Your task to perform on an android device: Is it going to rain this weekend? Image 0: 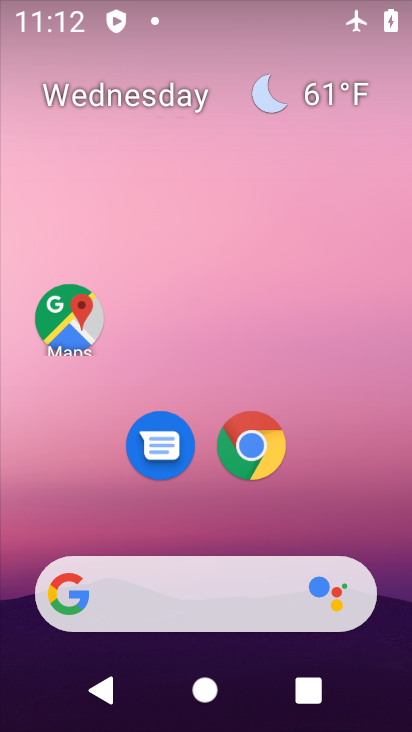
Step 0: drag from (362, 410) to (361, 227)
Your task to perform on an android device: Is it going to rain this weekend? Image 1: 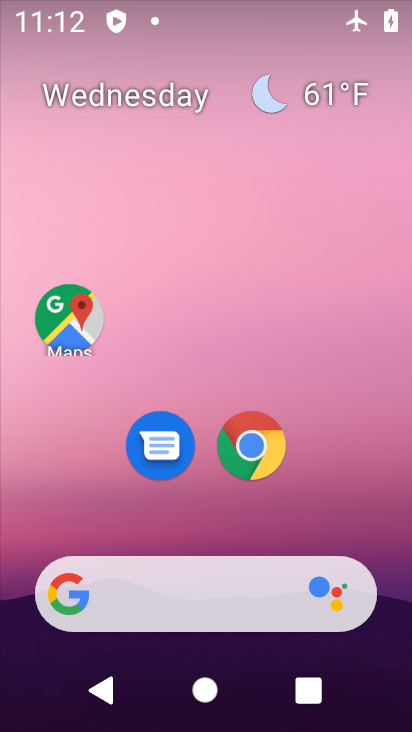
Step 1: drag from (320, 533) to (297, 173)
Your task to perform on an android device: Is it going to rain this weekend? Image 2: 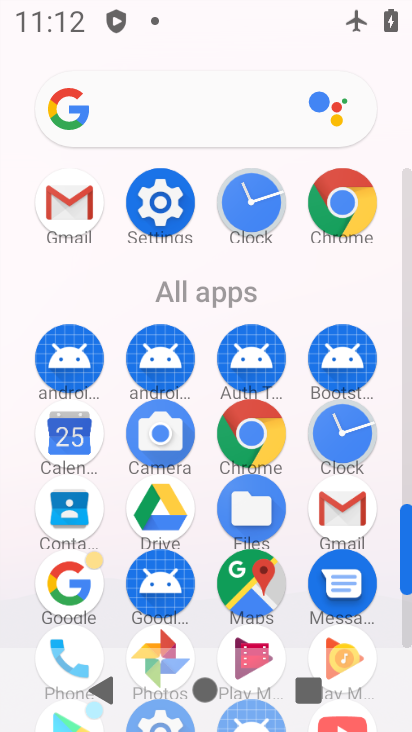
Step 2: click (257, 427)
Your task to perform on an android device: Is it going to rain this weekend? Image 3: 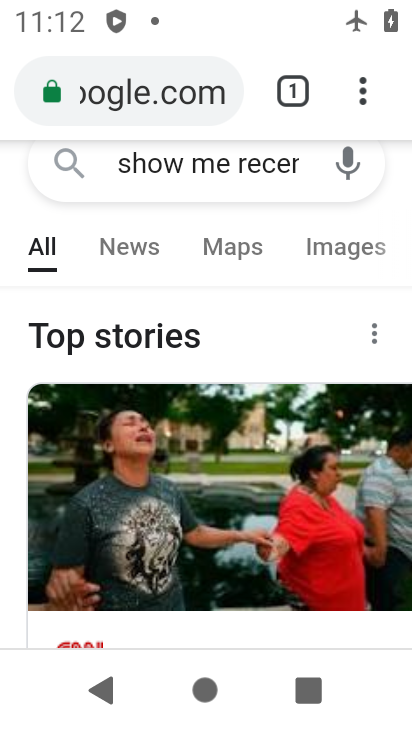
Step 3: click (212, 77)
Your task to perform on an android device: Is it going to rain this weekend? Image 4: 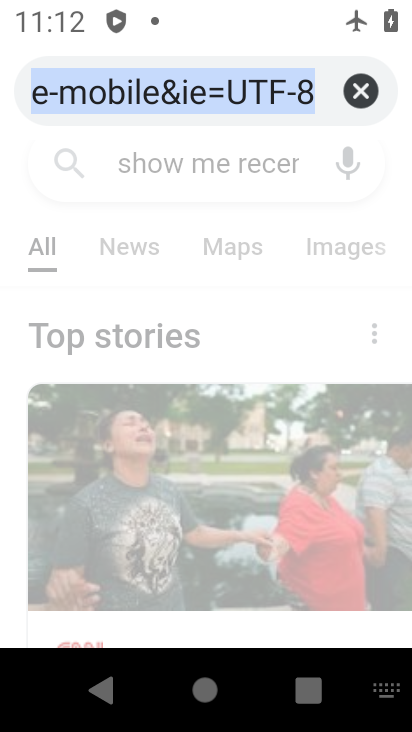
Step 4: click (335, 88)
Your task to perform on an android device: Is it going to rain this weekend? Image 5: 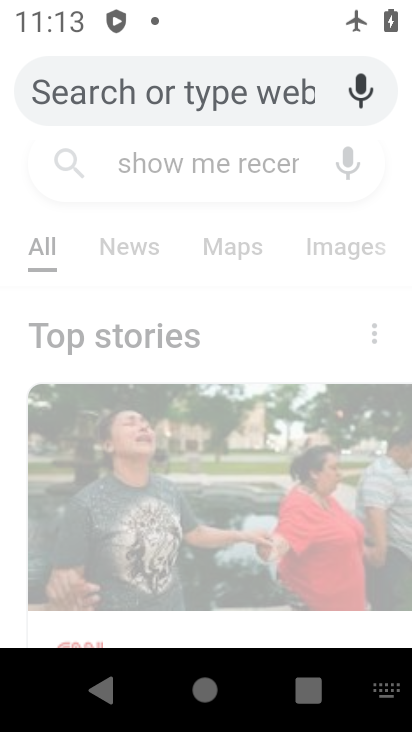
Step 5: type "is it going to rain this weekend"
Your task to perform on an android device: Is it going to rain this weekend? Image 6: 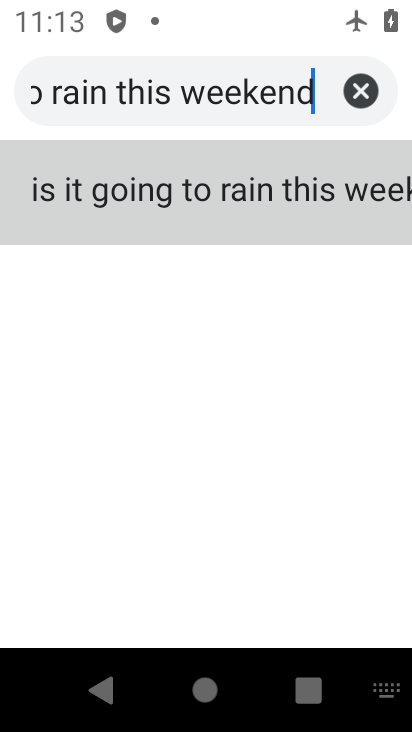
Step 6: click (275, 181)
Your task to perform on an android device: Is it going to rain this weekend? Image 7: 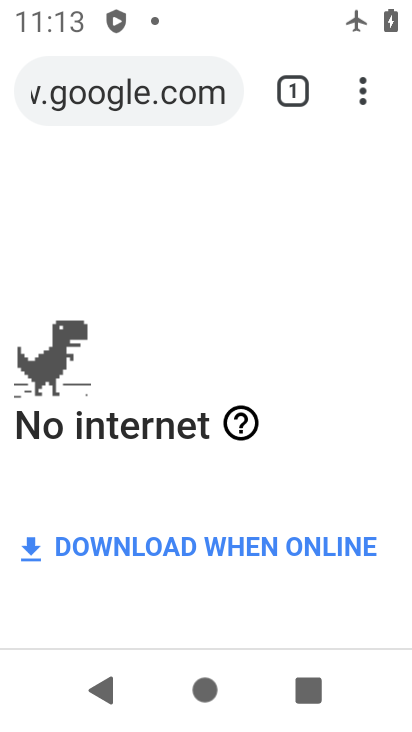
Step 7: task complete